Your task to perform on an android device: What's the weather today? Image 0: 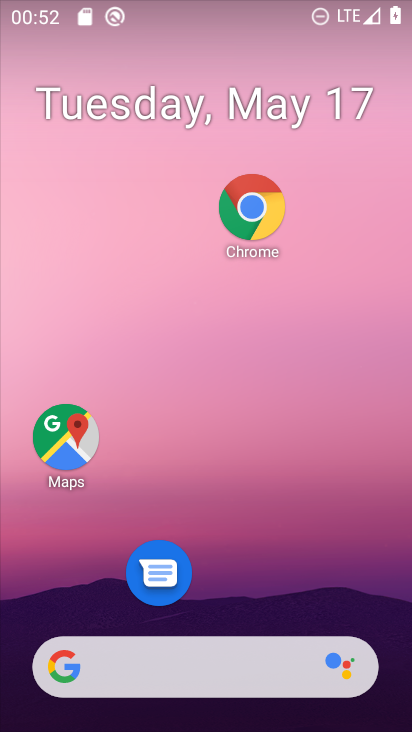
Step 0: drag from (23, 400) to (365, 420)
Your task to perform on an android device: What's the weather today? Image 1: 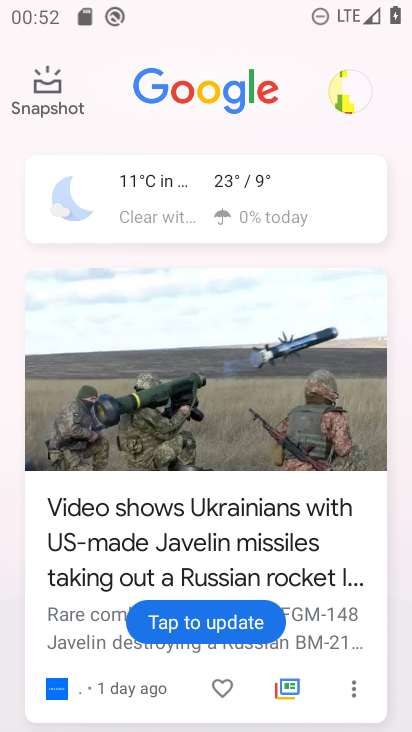
Step 1: click (226, 216)
Your task to perform on an android device: What's the weather today? Image 2: 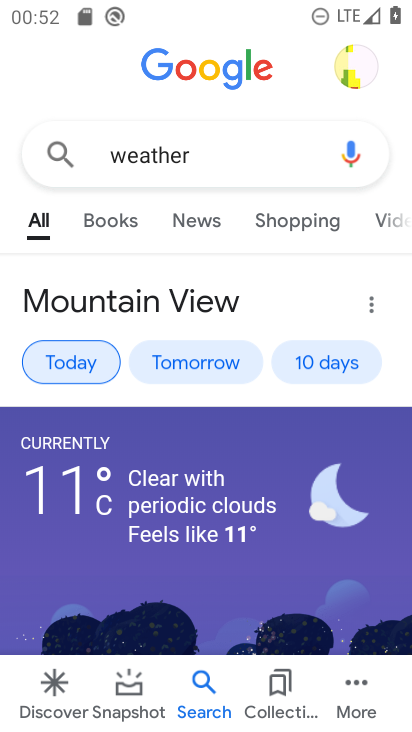
Step 2: task complete